Your task to perform on an android device: open app "Mercado Libre" Image 0: 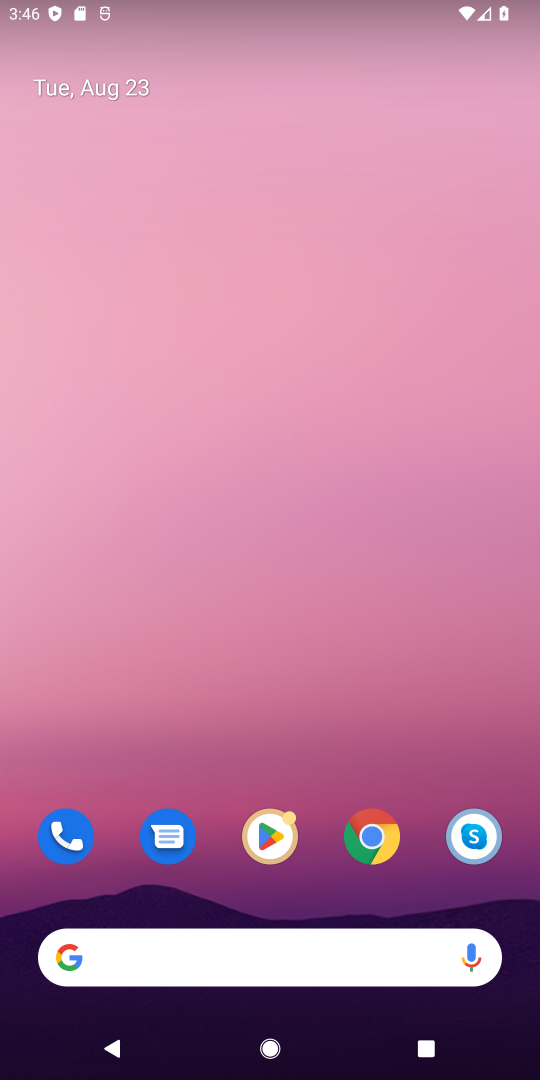
Step 0: click (278, 836)
Your task to perform on an android device: open app "Mercado Libre" Image 1: 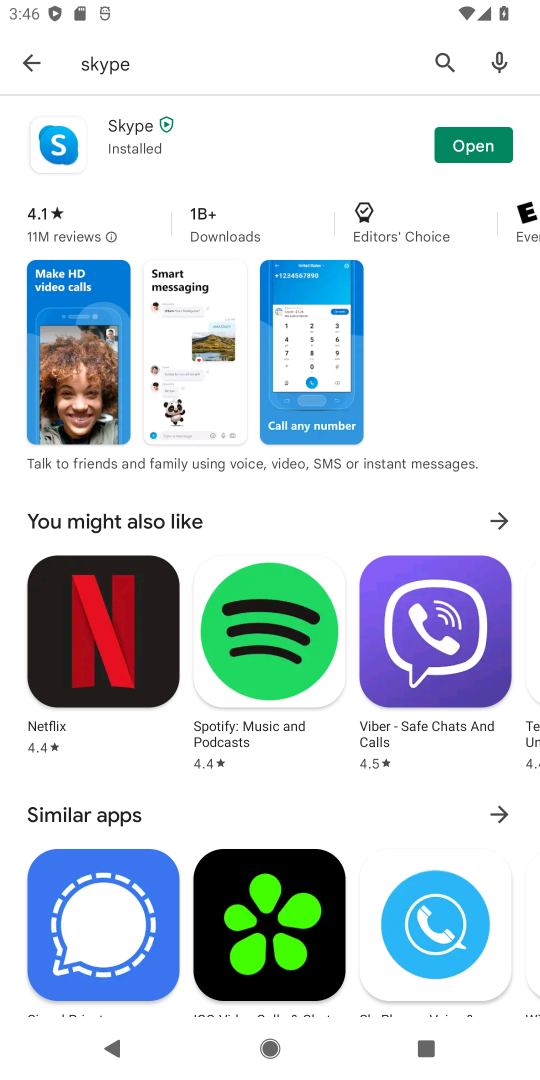
Step 1: click (435, 57)
Your task to perform on an android device: open app "Mercado Libre" Image 2: 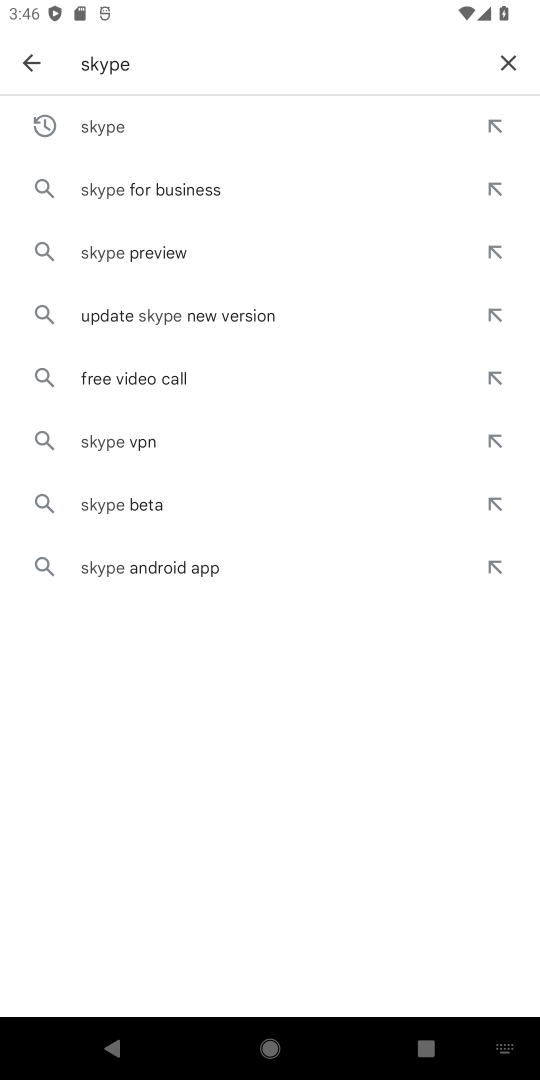
Step 2: click (499, 57)
Your task to perform on an android device: open app "Mercado Libre" Image 3: 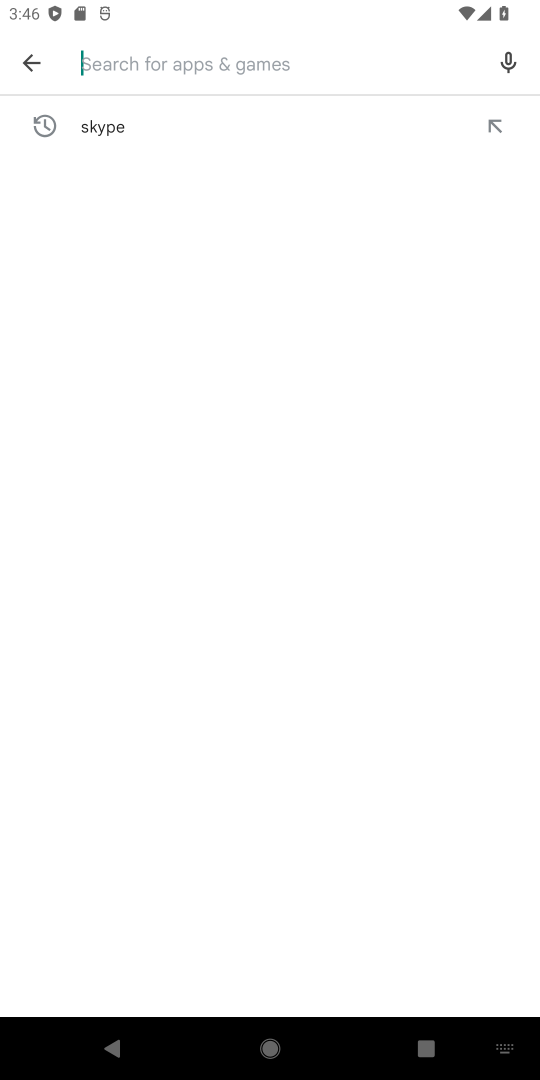
Step 3: type "Mercado Libre"
Your task to perform on an android device: open app "Mercado Libre" Image 4: 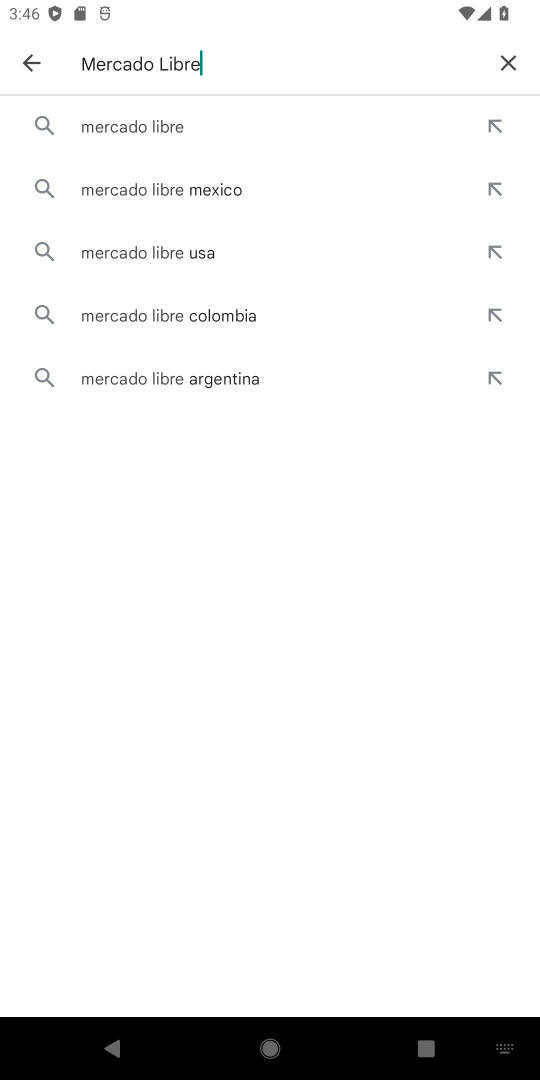
Step 4: click (144, 118)
Your task to perform on an android device: open app "Mercado Libre" Image 5: 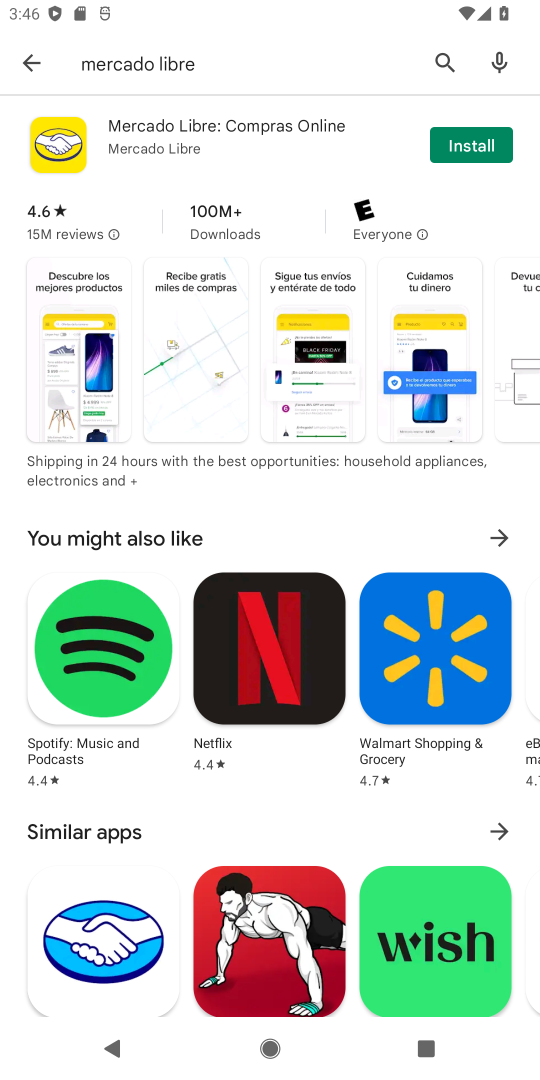
Step 5: click (116, 129)
Your task to perform on an android device: open app "Mercado Libre" Image 6: 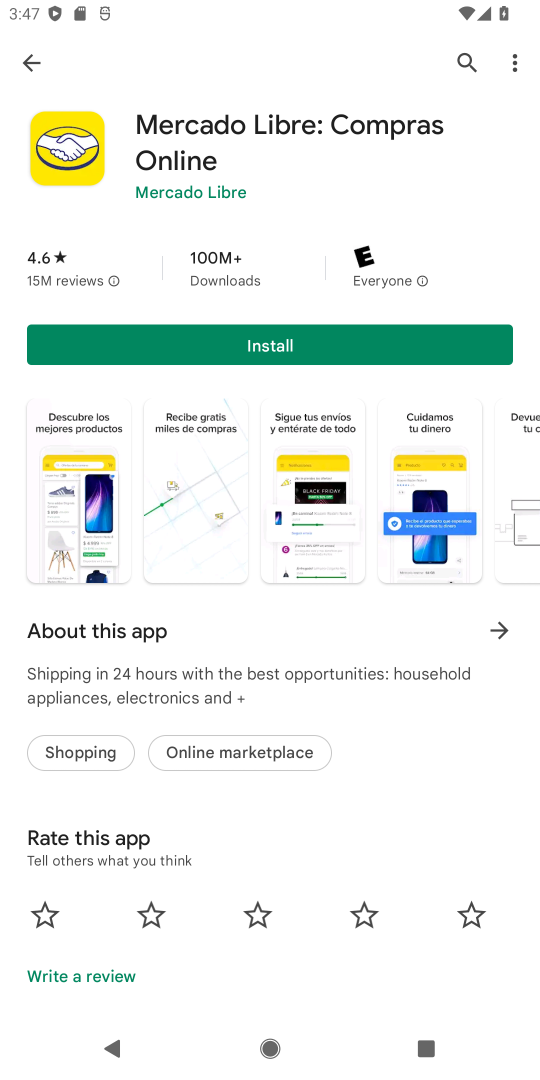
Step 6: task complete